Your task to perform on an android device: allow cookies in the chrome app Image 0: 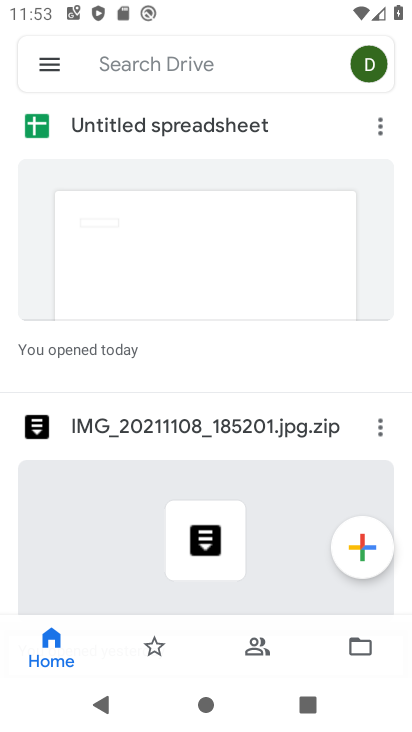
Step 0: press home button
Your task to perform on an android device: allow cookies in the chrome app Image 1: 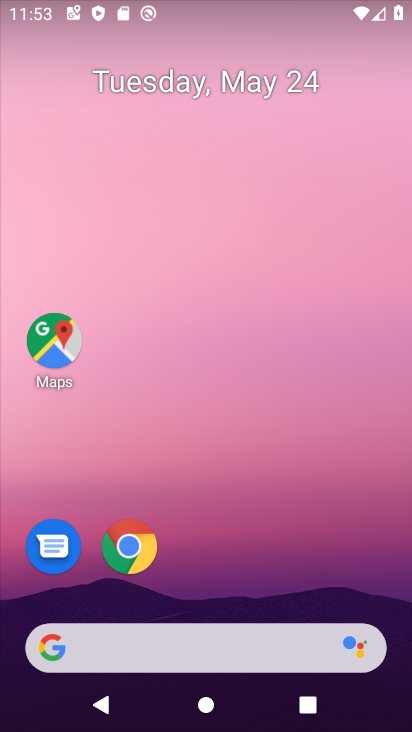
Step 1: drag from (227, 594) to (205, 102)
Your task to perform on an android device: allow cookies in the chrome app Image 2: 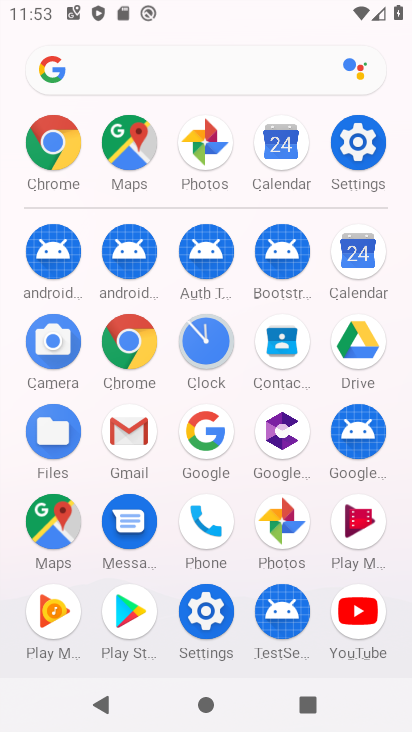
Step 2: click (51, 158)
Your task to perform on an android device: allow cookies in the chrome app Image 3: 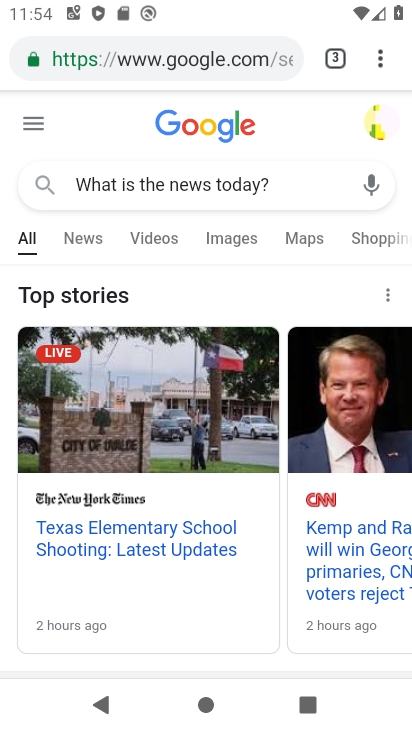
Step 3: click (381, 66)
Your task to perform on an android device: allow cookies in the chrome app Image 4: 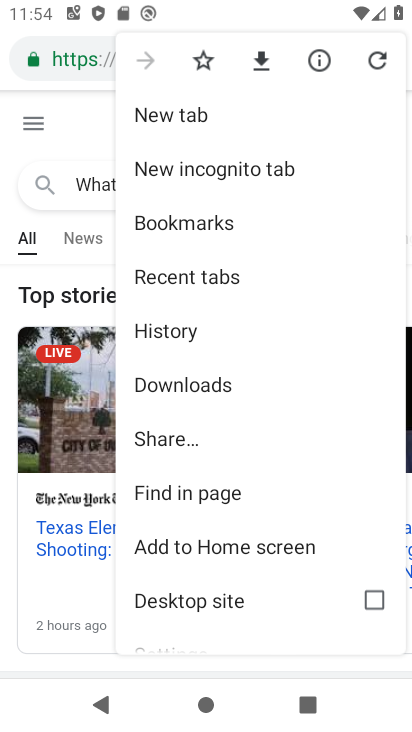
Step 4: drag from (264, 600) to (219, 277)
Your task to perform on an android device: allow cookies in the chrome app Image 5: 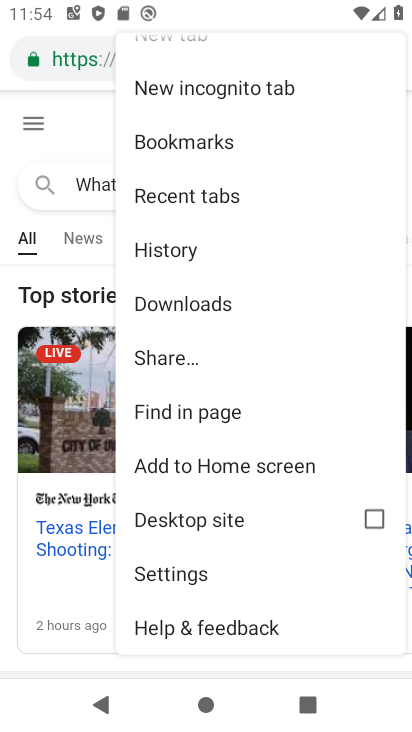
Step 5: click (213, 584)
Your task to perform on an android device: allow cookies in the chrome app Image 6: 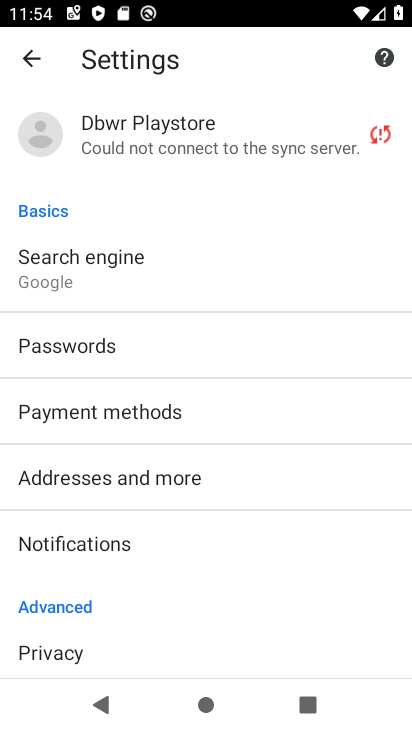
Step 6: drag from (209, 616) to (188, 262)
Your task to perform on an android device: allow cookies in the chrome app Image 7: 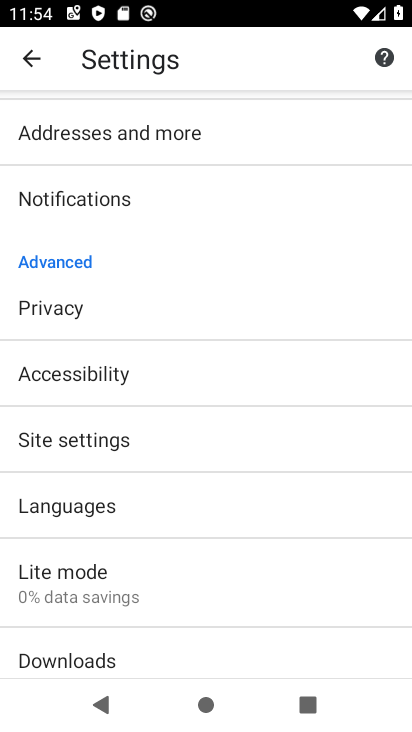
Step 7: click (170, 442)
Your task to perform on an android device: allow cookies in the chrome app Image 8: 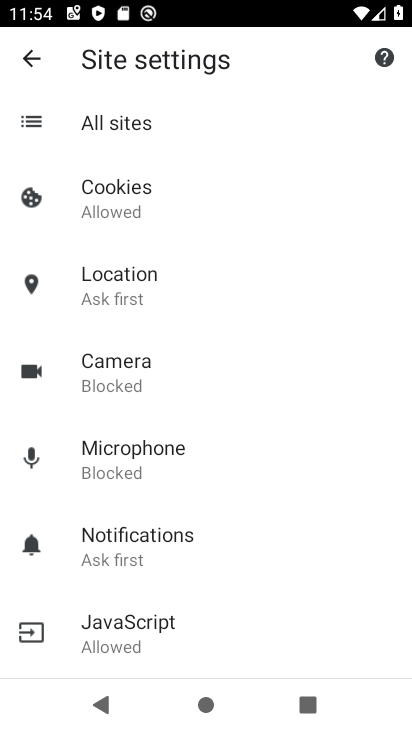
Step 8: click (244, 188)
Your task to perform on an android device: allow cookies in the chrome app Image 9: 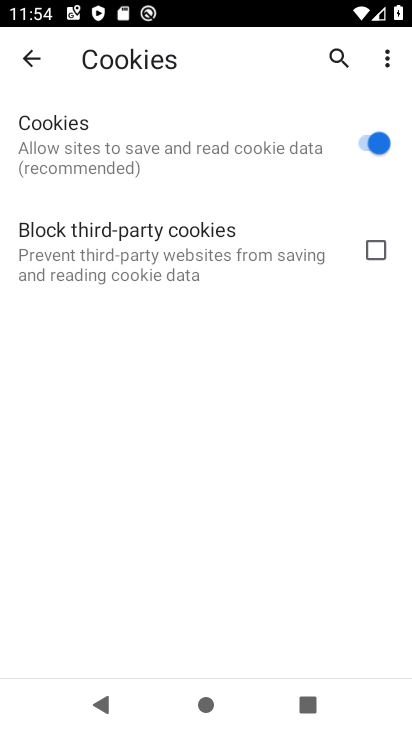
Step 9: task complete